Your task to perform on an android device: Open Chrome and go to the settings page Image 0: 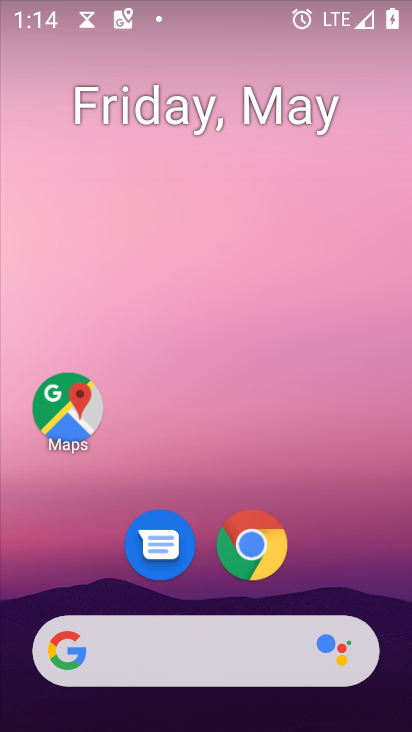
Step 0: click (264, 557)
Your task to perform on an android device: Open Chrome and go to the settings page Image 1: 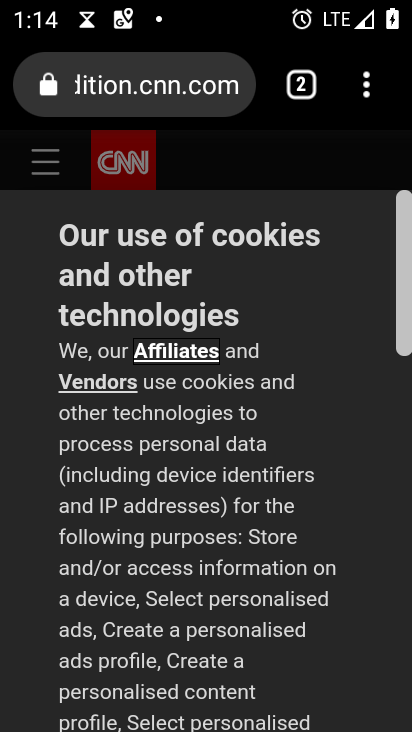
Step 1: click (376, 68)
Your task to perform on an android device: Open Chrome and go to the settings page Image 2: 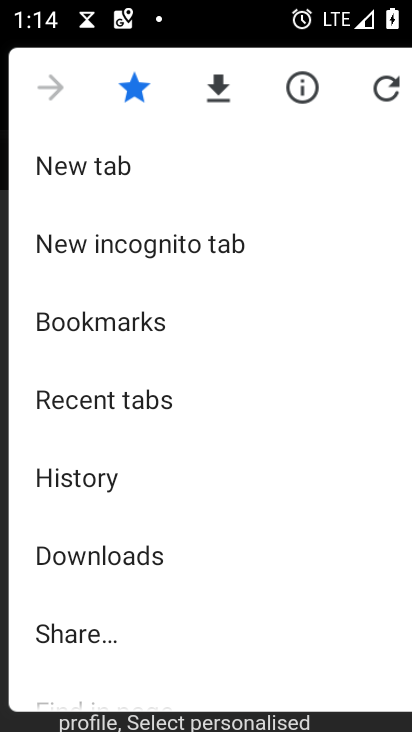
Step 2: drag from (172, 603) to (185, 292)
Your task to perform on an android device: Open Chrome and go to the settings page Image 3: 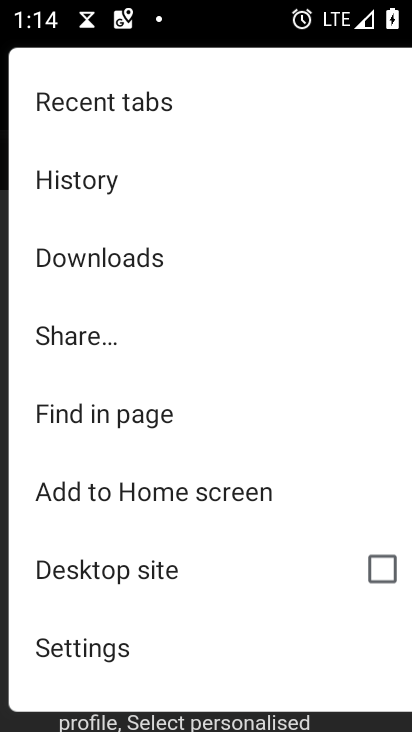
Step 3: click (103, 642)
Your task to perform on an android device: Open Chrome and go to the settings page Image 4: 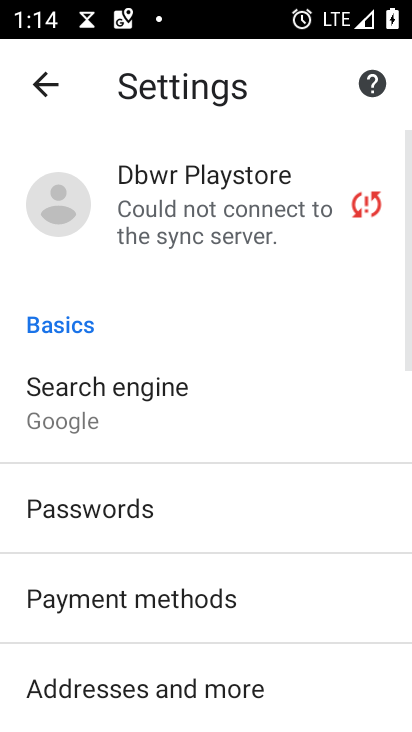
Step 4: task complete